Your task to perform on an android device: refresh tabs in the chrome app Image 0: 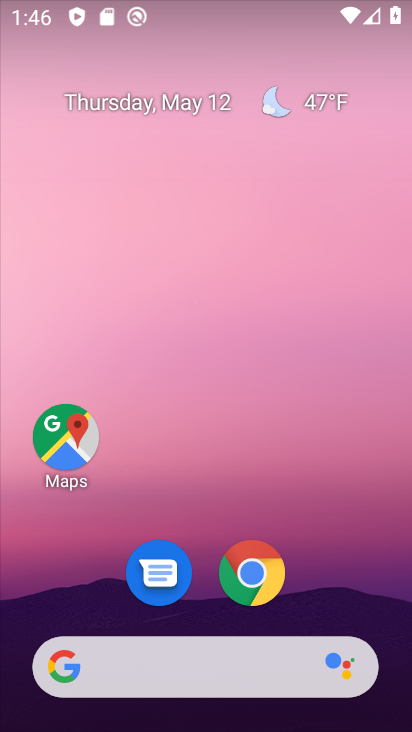
Step 0: click (254, 574)
Your task to perform on an android device: refresh tabs in the chrome app Image 1: 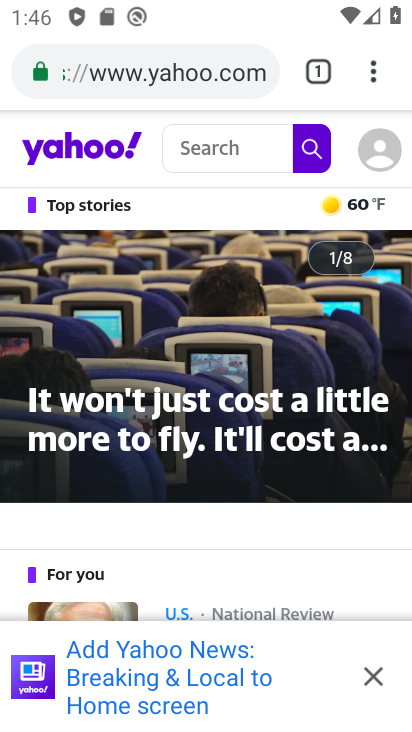
Step 1: click (370, 68)
Your task to perform on an android device: refresh tabs in the chrome app Image 2: 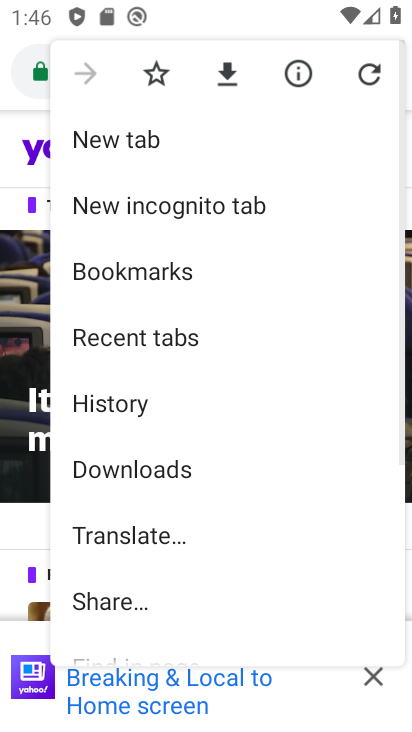
Step 2: click (367, 89)
Your task to perform on an android device: refresh tabs in the chrome app Image 3: 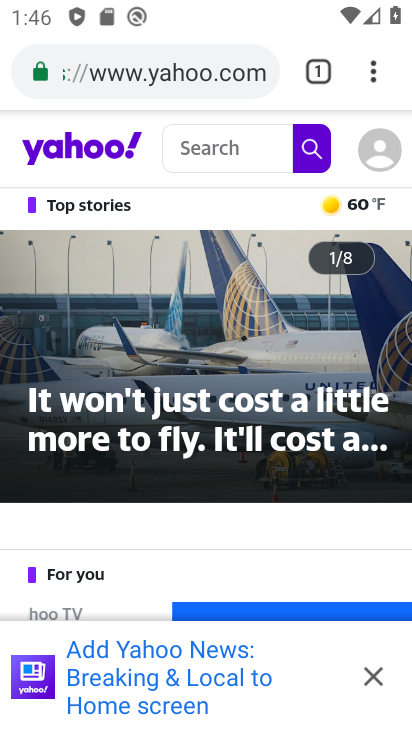
Step 3: task complete